Your task to perform on an android device: open app "Facebook Lite" Image 0: 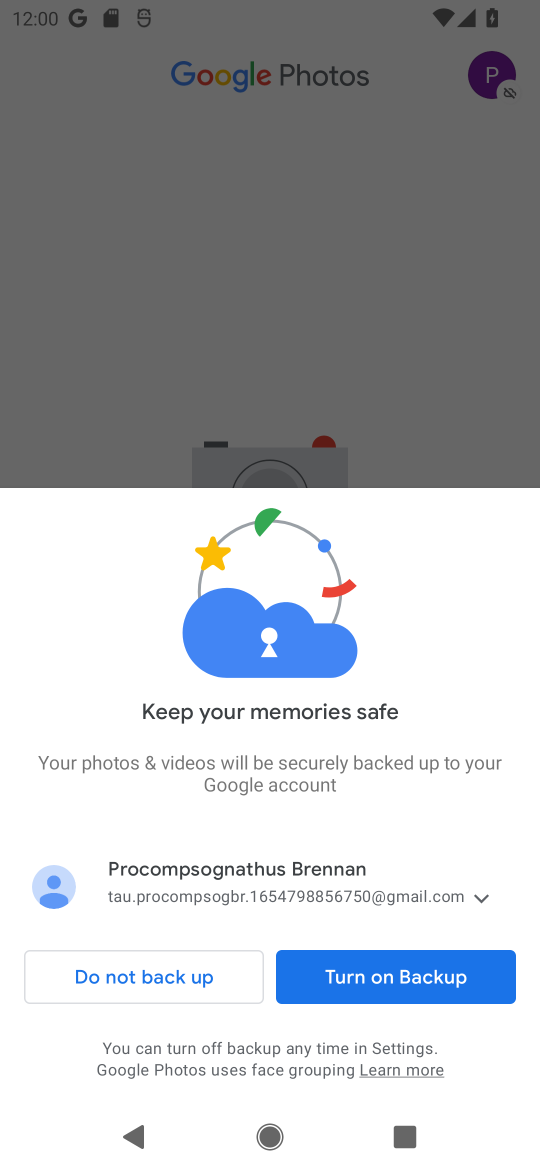
Step 0: press back button
Your task to perform on an android device: open app "Facebook Lite" Image 1: 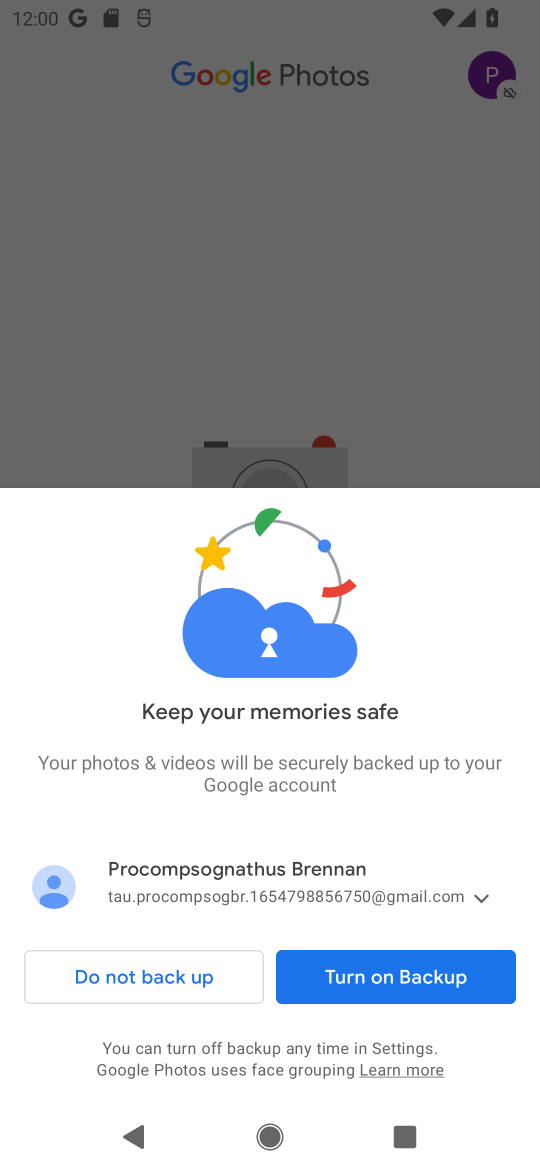
Step 1: press back button
Your task to perform on an android device: open app "Facebook Lite" Image 2: 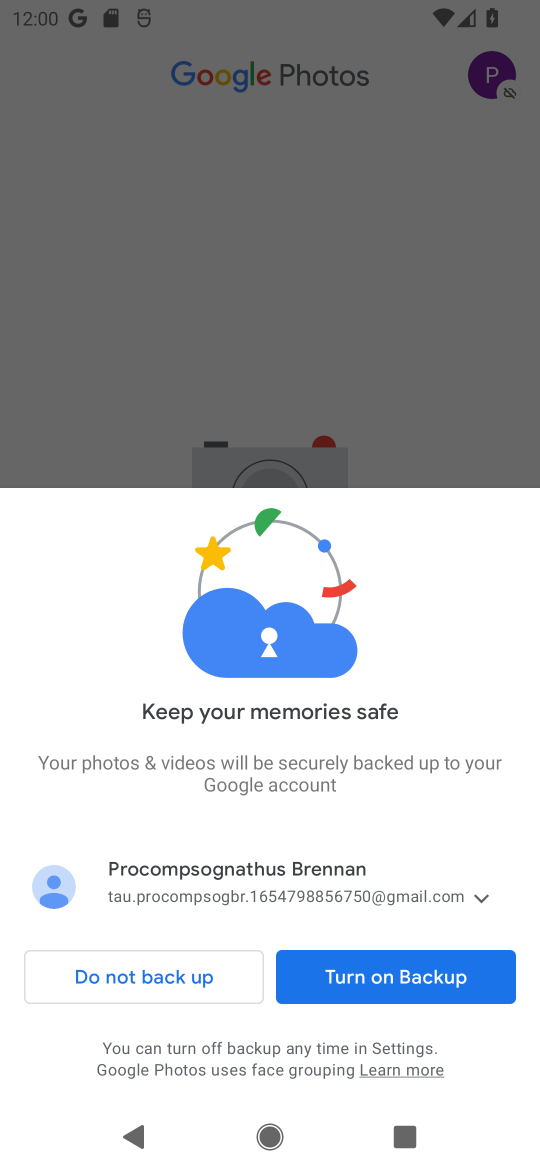
Step 2: press back button
Your task to perform on an android device: open app "Facebook Lite" Image 3: 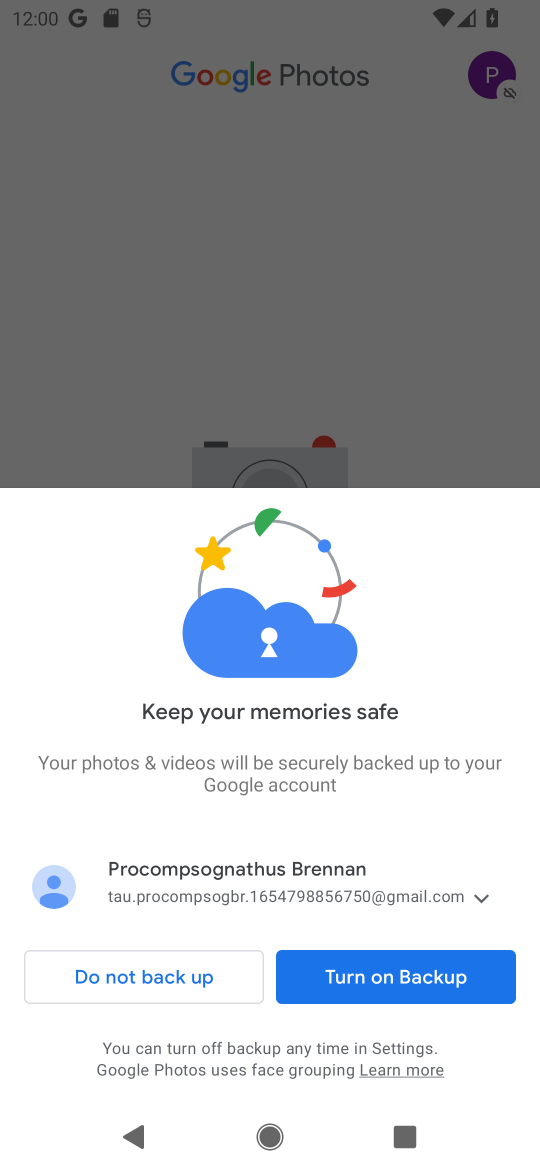
Step 3: press home button
Your task to perform on an android device: open app "Facebook Lite" Image 4: 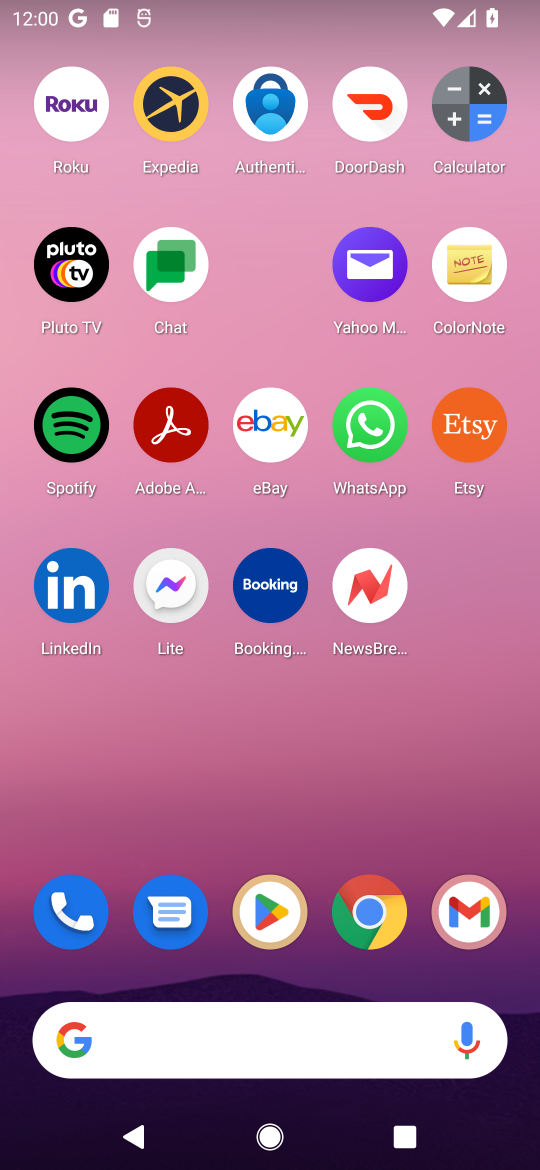
Step 4: drag from (254, 852) to (329, 128)
Your task to perform on an android device: open app "Facebook Lite" Image 5: 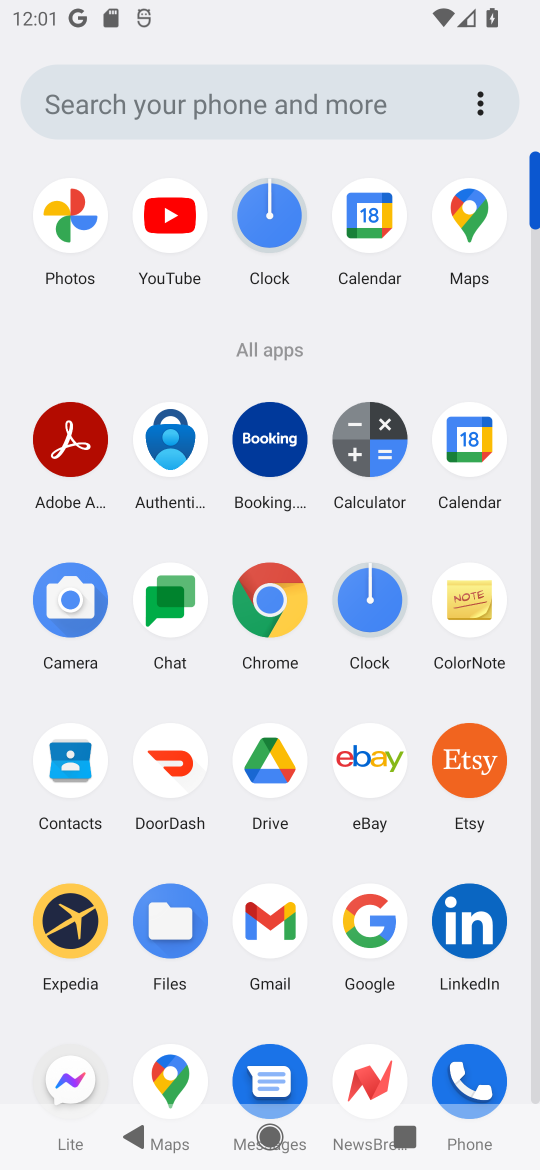
Step 5: drag from (233, 1002) to (327, 320)
Your task to perform on an android device: open app "Facebook Lite" Image 6: 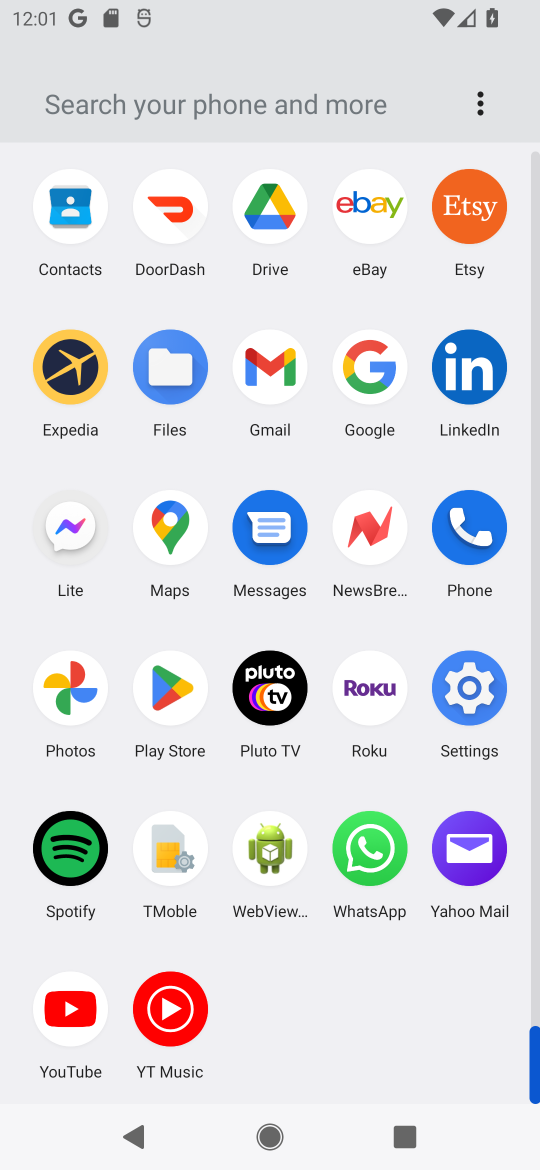
Step 6: click (181, 677)
Your task to perform on an android device: open app "Facebook Lite" Image 7: 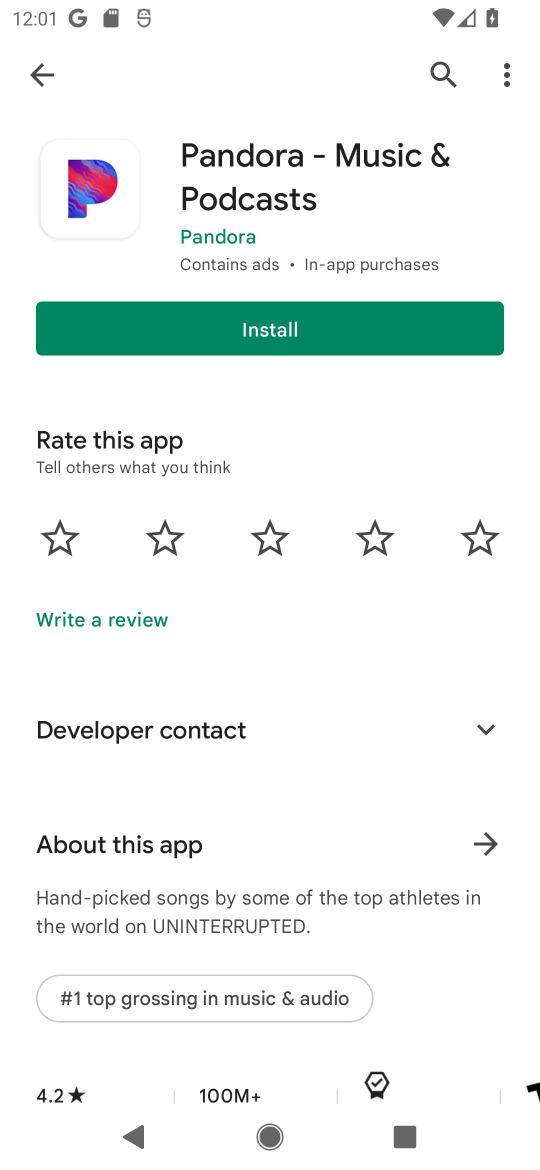
Step 7: click (446, 60)
Your task to perform on an android device: open app "Facebook Lite" Image 8: 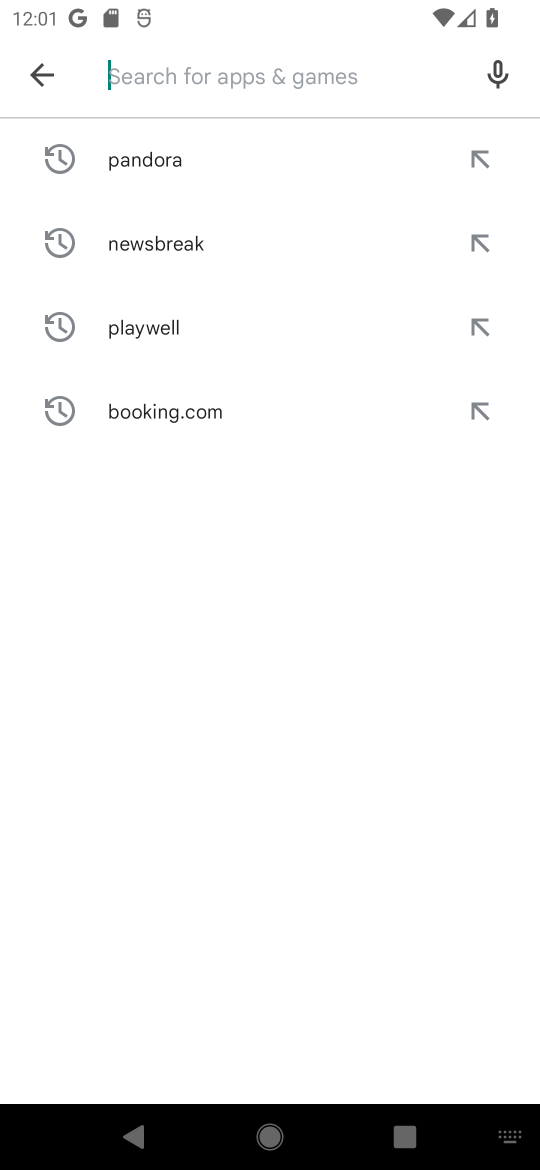
Step 8: click (198, 77)
Your task to perform on an android device: open app "Facebook Lite" Image 9: 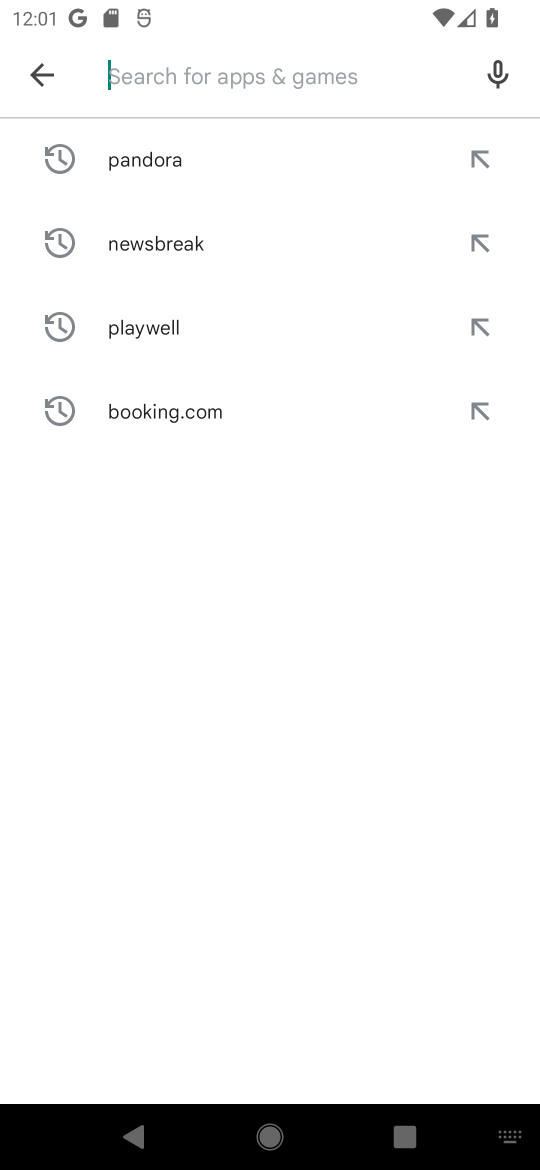
Step 9: type "Facebook Lite"
Your task to perform on an android device: open app "Facebook Lite" Image 10: 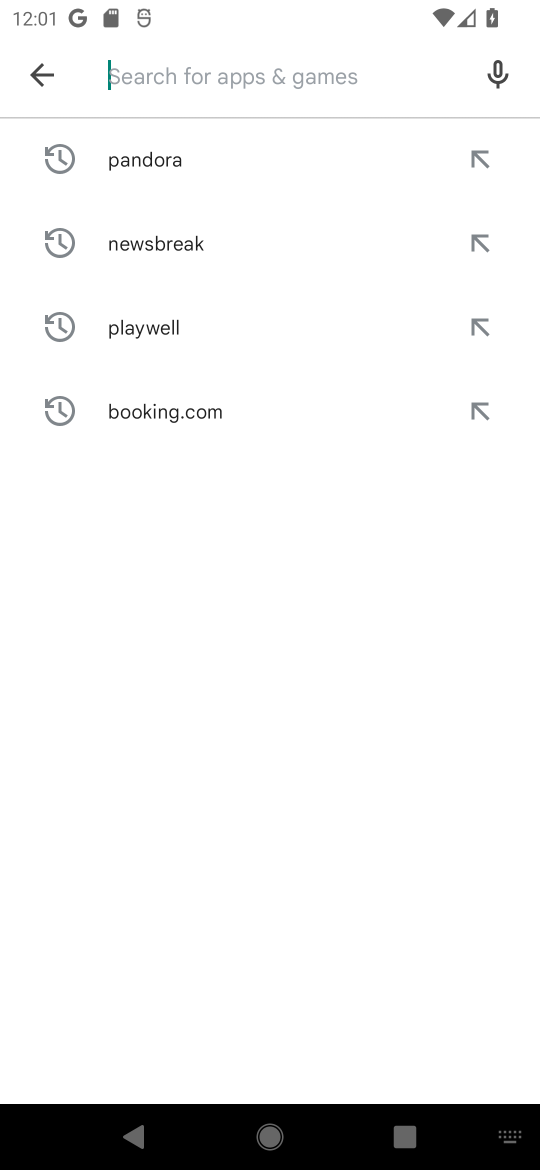
Step 10: click (249, 695)
Your task to perform on an android device: open app "Facebook Lite" Image 11: 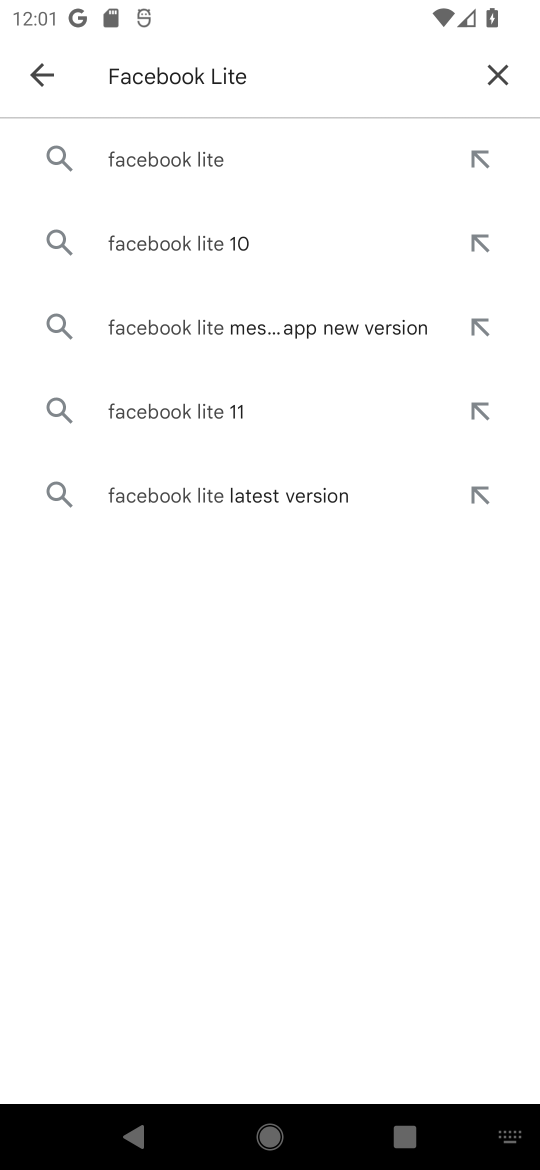
Step 11: click (171, 157)
Your task to perform on an android device: open app "Facebook Lite" Image 12: 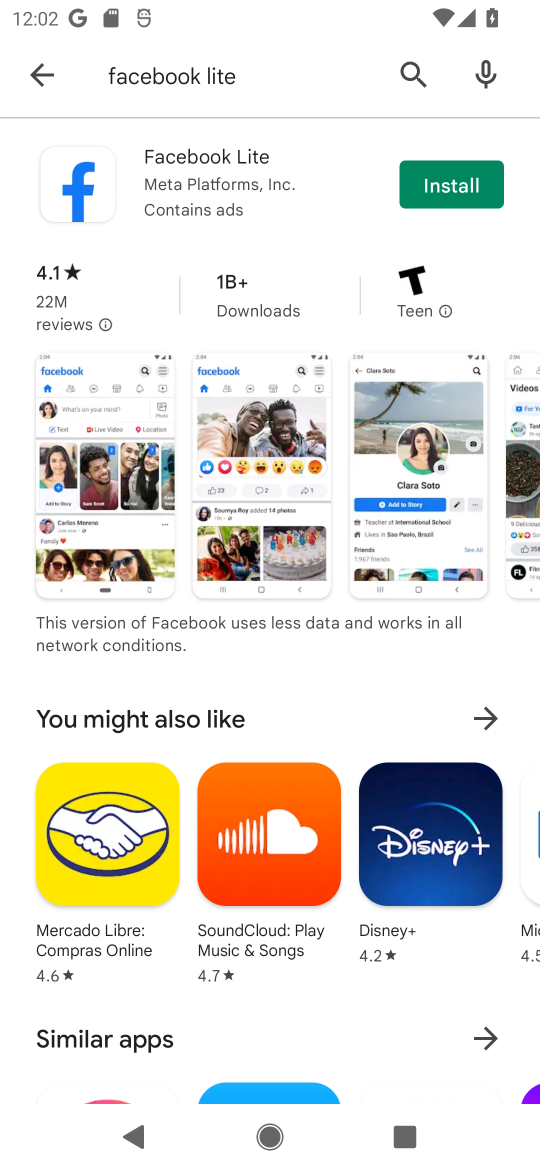
Step 12: task complete